Your task to perform on an android device: Go to settings Image 0: 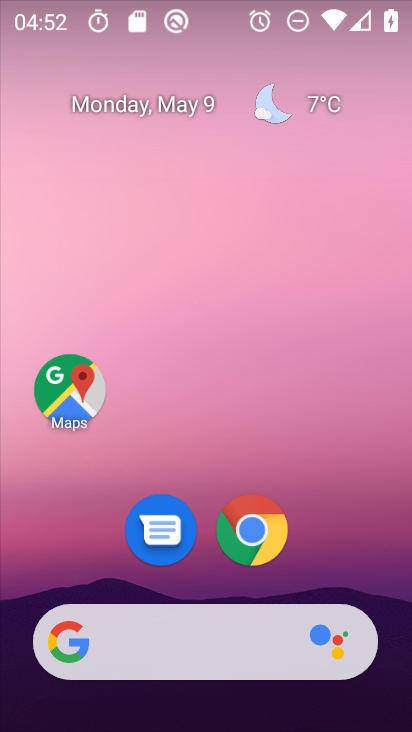
Step 0: drag from (211, 559) to (275, 163)
Your task to perform on an android device: Go to settings Image 1: 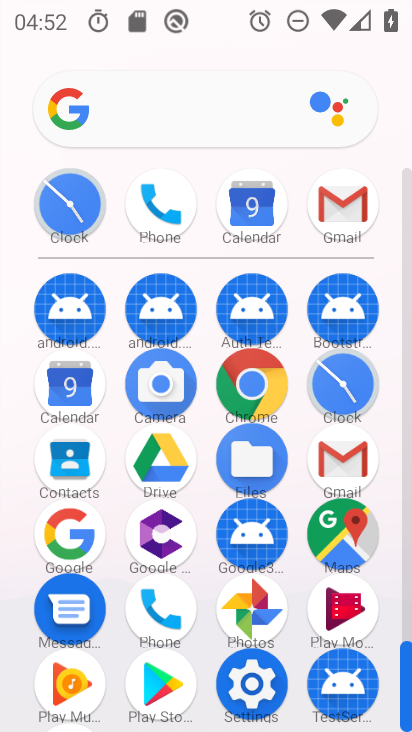
Step 1: click (254, 674)
Your task to perform on an android device: Go to settings Image 2: 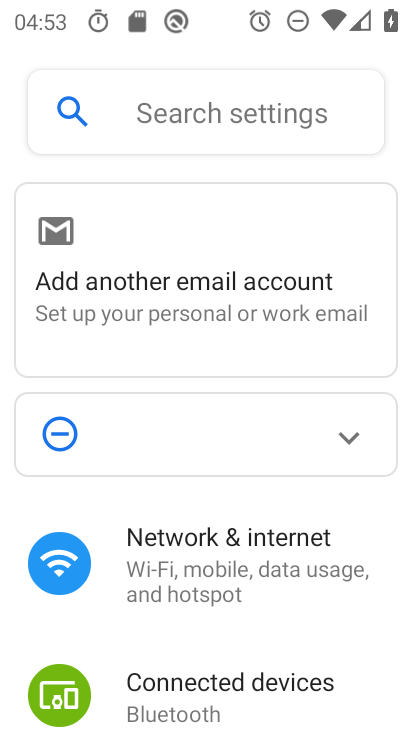
Step 2: task complete